Your task to perform on an android device: Open CNN.com Image 0: 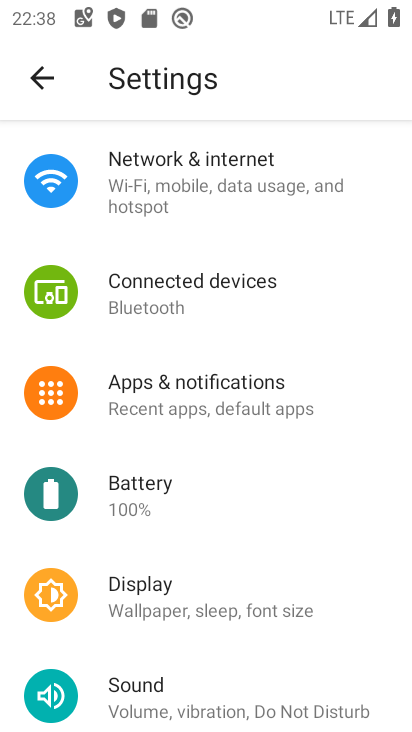
Step 0: press home button
Your task to perform on an android device: Open CNN.com Image 1: 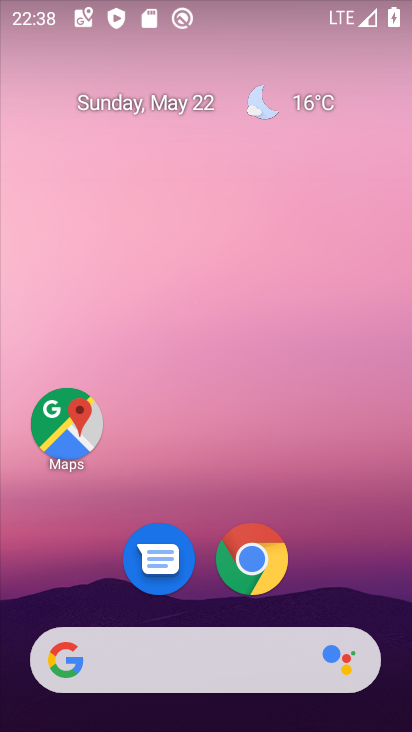
Step 1: drag from (220, 667) to (180, 283)
Your task to perform on an android device: Open CNN.com Image 2: 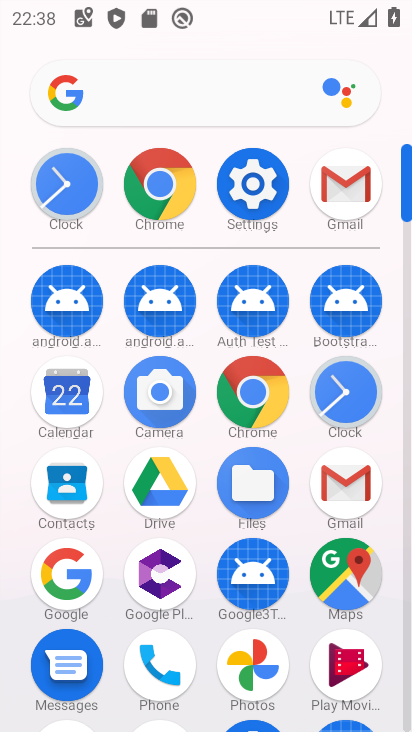
Step 2: click (125, 194)
Your task to perform on an android device: Open CNN.com Image 3: 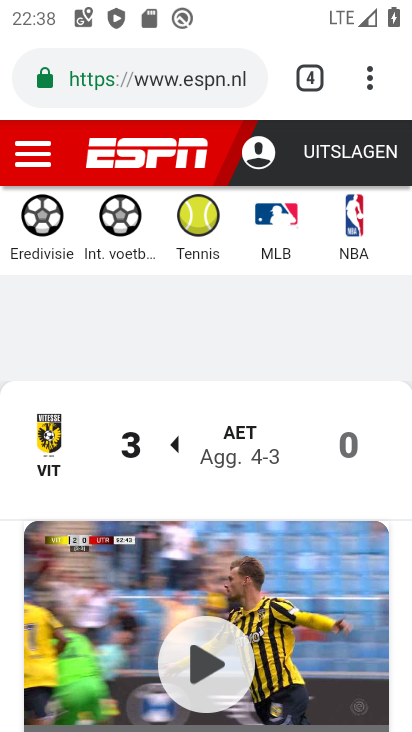
Step 3: click (153, 96)
Your task to perform on an android device: Open CNN.com Image 4: 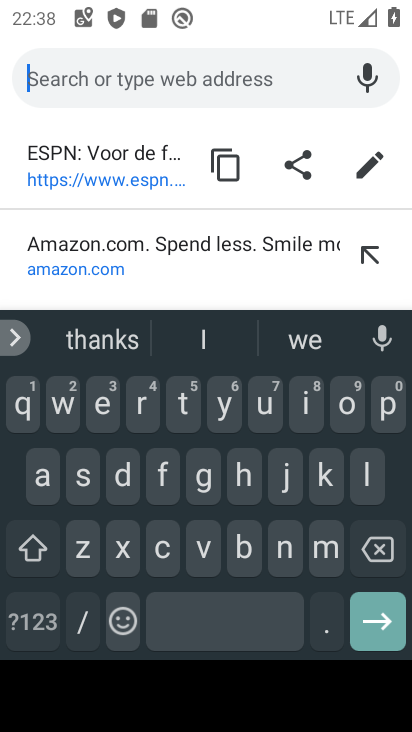
Step 4: click (155, 543)
Your task to perform on an android device: Open CNN.com Image 5: 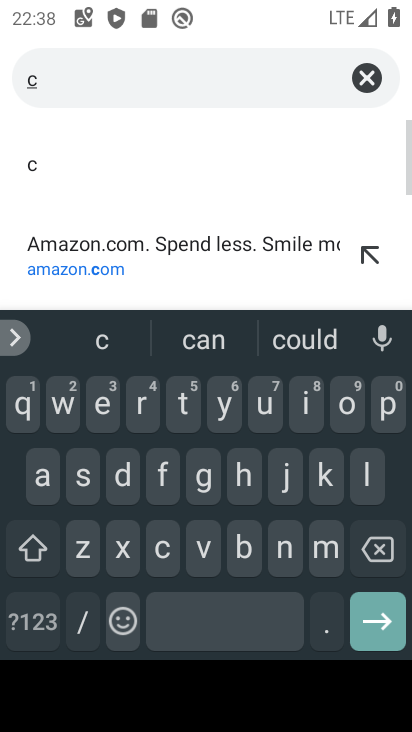
Step 5: click (287, 551)
Your task to perform on an android device: Open CNN.com Image 6: 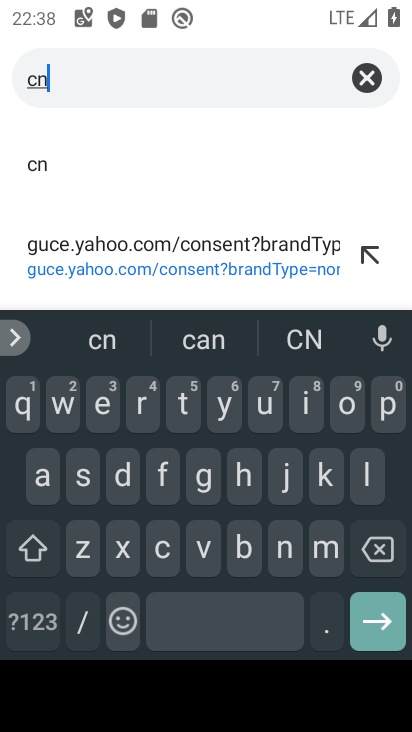
Step 6: click (287, 551)
Your task to perform on an android device: Open CNN.com Image 7: 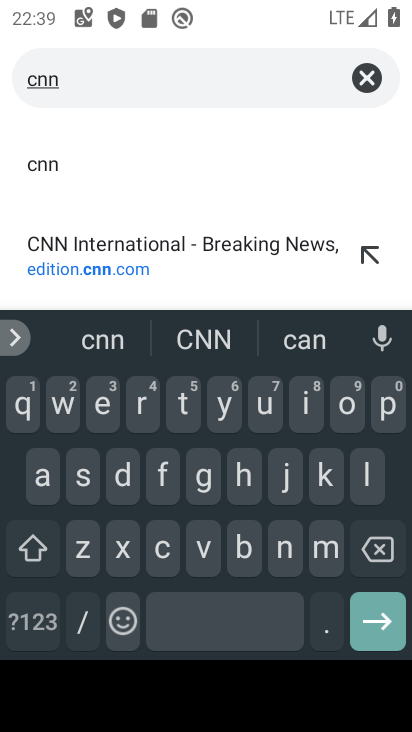
Step 7: click (331, 638)
Your task to perform on an android device: Open CNN.com Image 8: 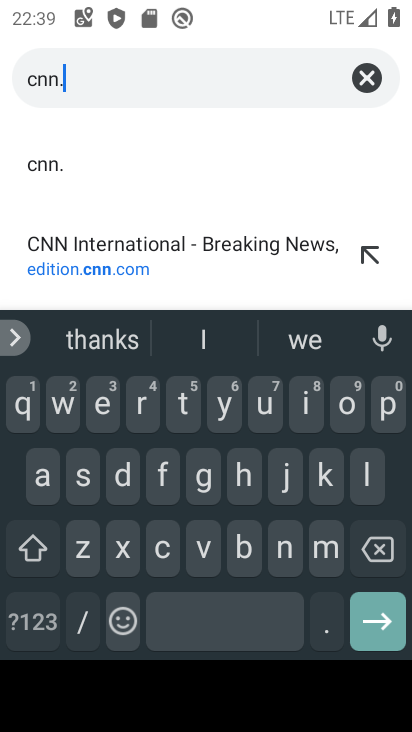
Step 8: click (169, 546)
Your task to perform on an android device: Open CNN.com Image 9: 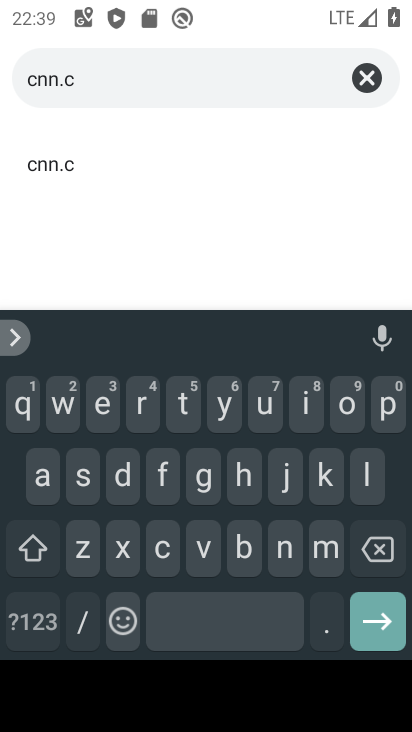
Step 9: click (342, 416)
Your task to perform on an android device: Open CNN.com Image 10: 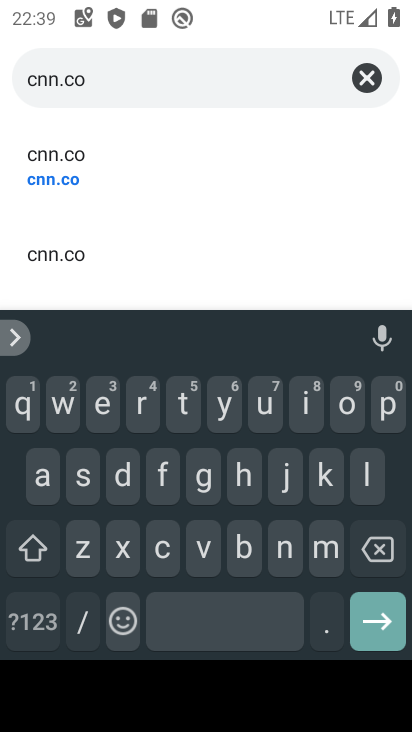
Step 10: click (332, 550)
Your task to perform on an android device: Open CNN.com Image 11: 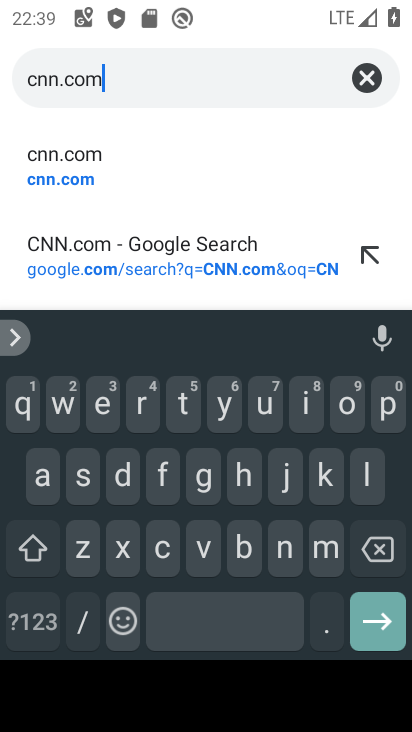
Step 11: click (376, 645)
Your task to perform on an android device: Open CNN.com Image 12: 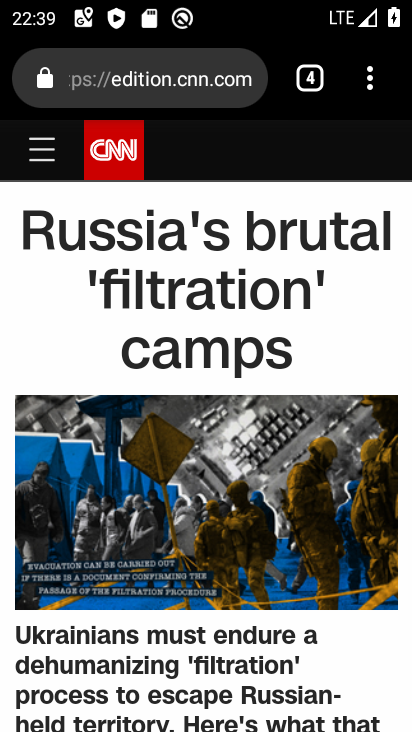
Step 12: task complete